Your task to perform on an android device: Go to Google Image 0: 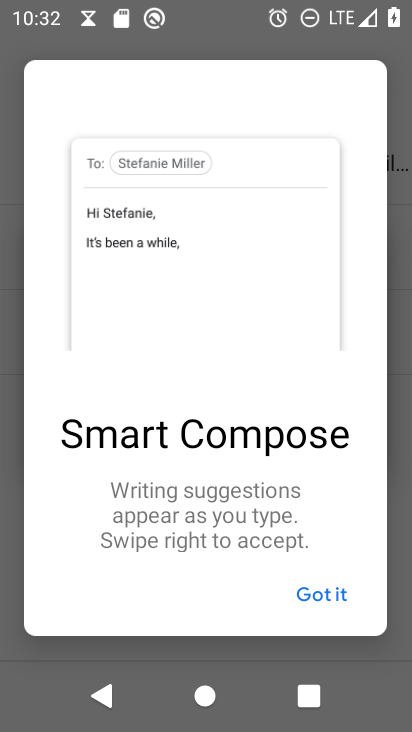
Step 0: press home button
Your task to perform on an android device: Go to Google Image 1: 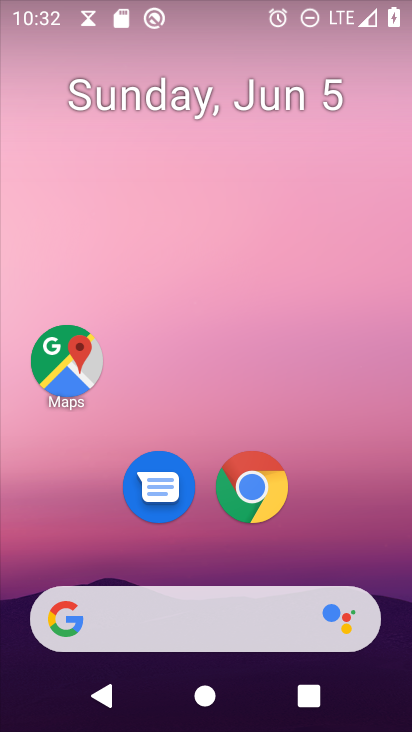
Step 1: drag from (185, 518) to (209, 154)
Your task to perform on an android device: Go to Google Image 2: 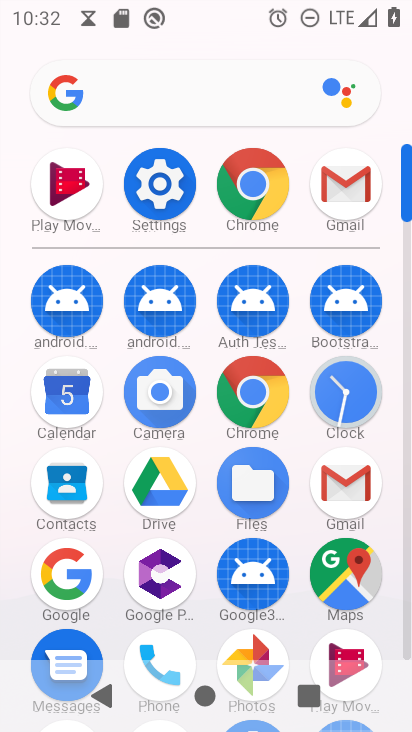
Step 2: click (52, 579)
Your task to perform on an android device: Go to Google Image 3: 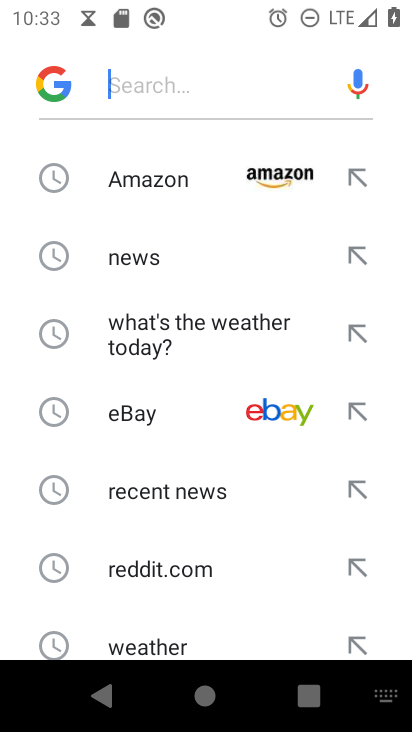
Step 3: task complete